Your task to perform on an android device: change the clock display to analog Image 0: 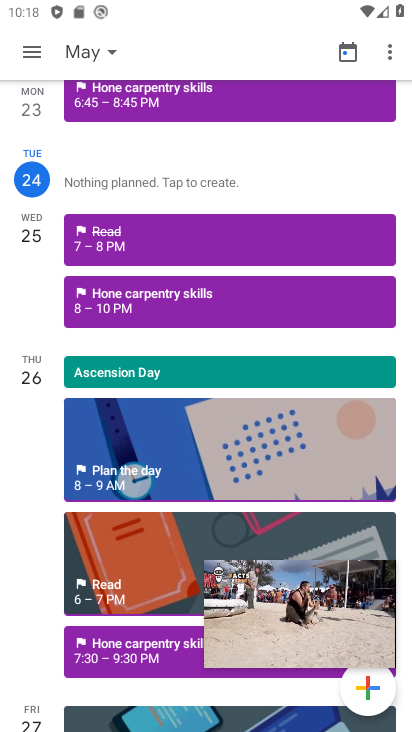
Step 0: press home button
Your task to perform on an android device: change the clock display to analog Image 1: 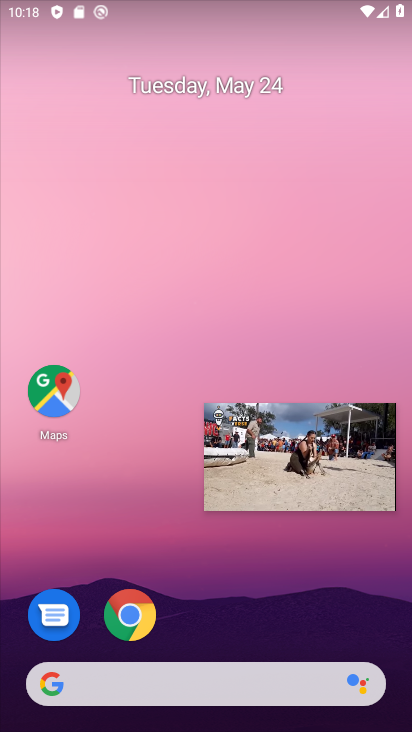
Step 1: click (382, 412)
Your task to perform on an android device: change the clock display to analog Image 2: 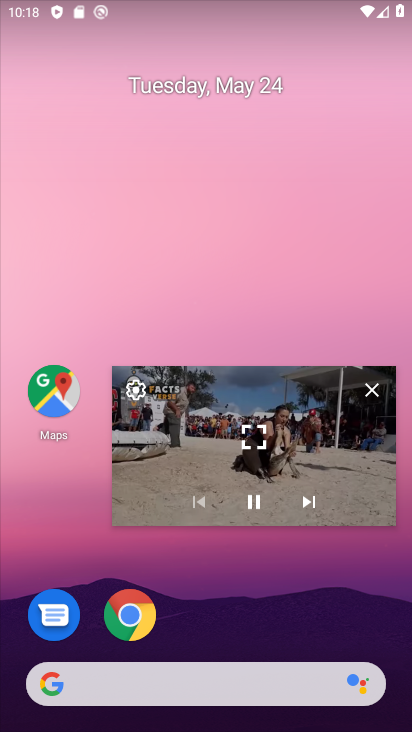
Step 2: click (381, 412)
Your task to perform on an android device: change the clock display to analog Image 3: 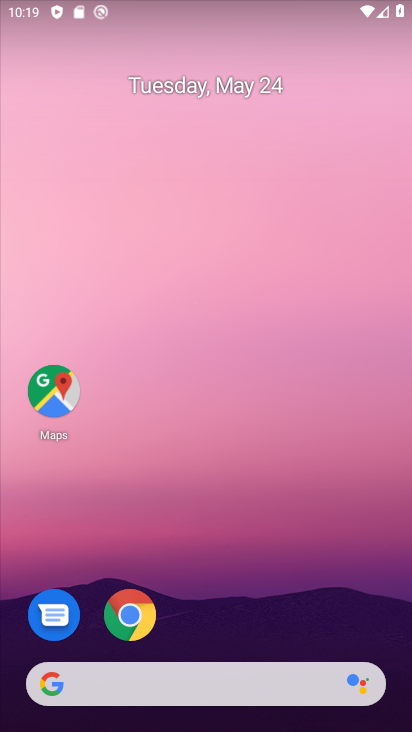
Step 3: drag from (232, 521) to (82, 40)
Your task to perform on an android device: change the clock display to analog Image 4: 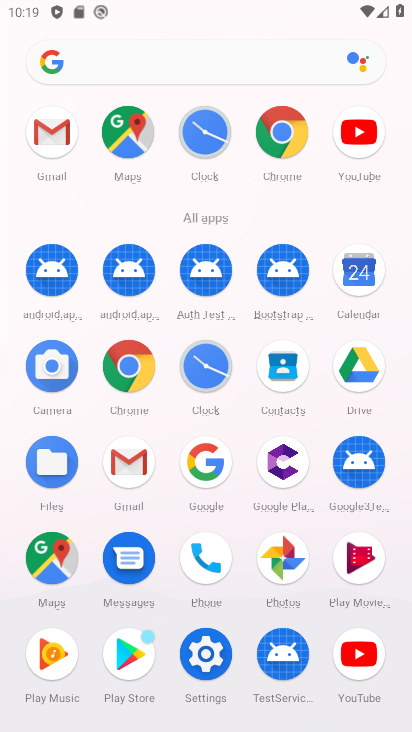
Step 4: click (183, 125)
Your task to perform on an android device: change the clock display to analog Image 5: 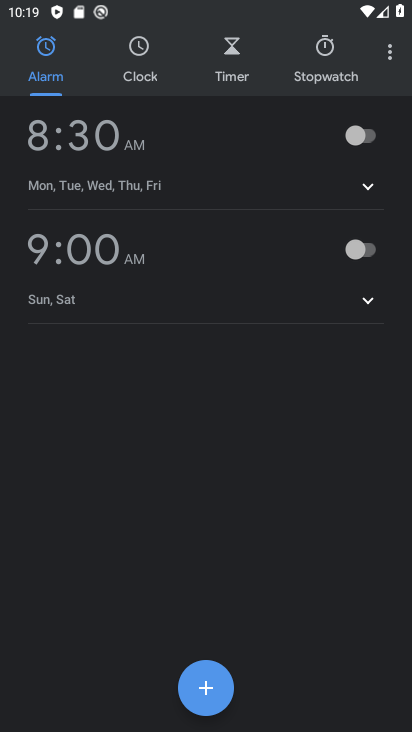
Step 5: click (379, 41)
Your task to perform on an android device: change the clock display to analog Image 6: 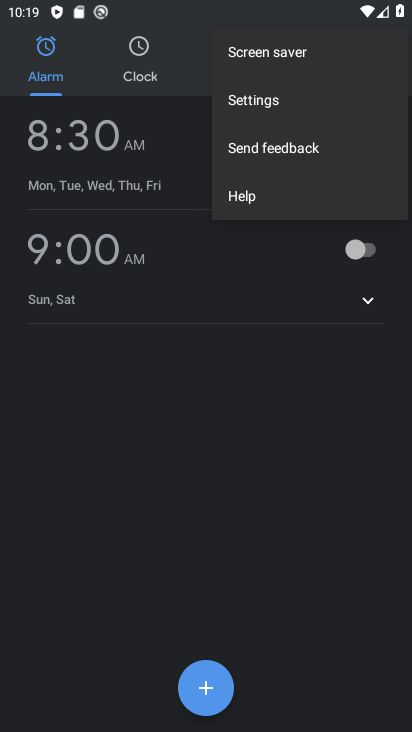
Step 6: click (289, 92)
Your task to perform on an android device: change the clock display to analog Image 7: 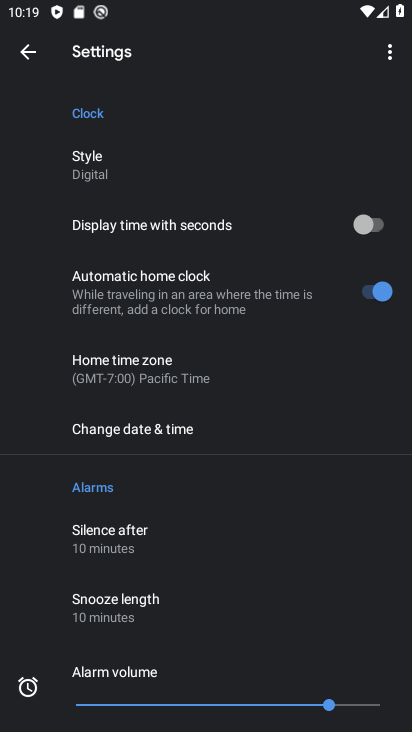
Step 7: click (114, 170)
Your task to perform on an android device: change the clock display to analog Image 8: 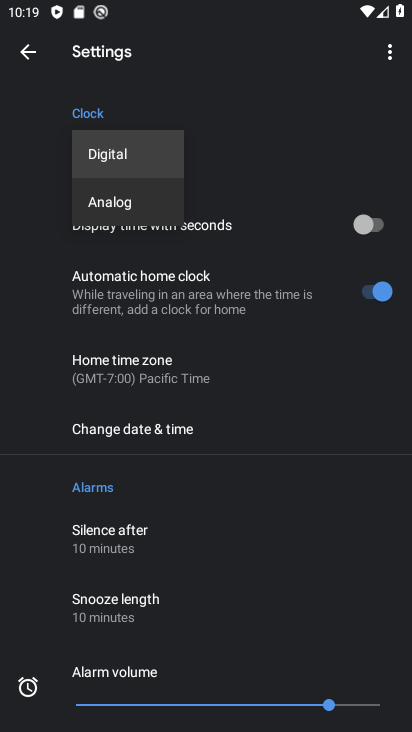
Step 8: click (122, 201)
Your task to perform on an android device: change the clock display to analog Image 9: 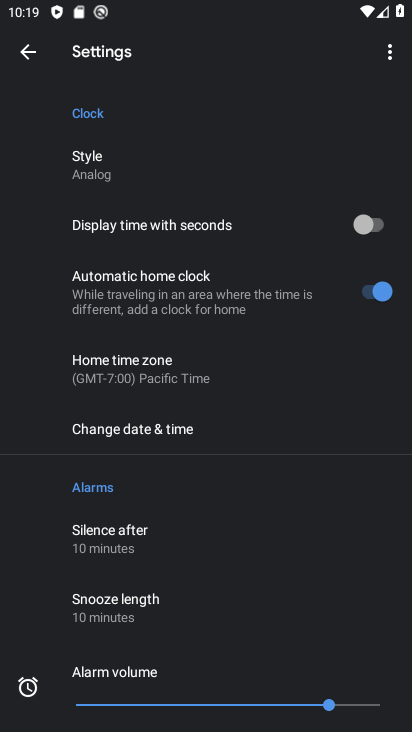
Step 9: task complete